Your task to perform on an android device: turn off improve location accuracy Image 0: 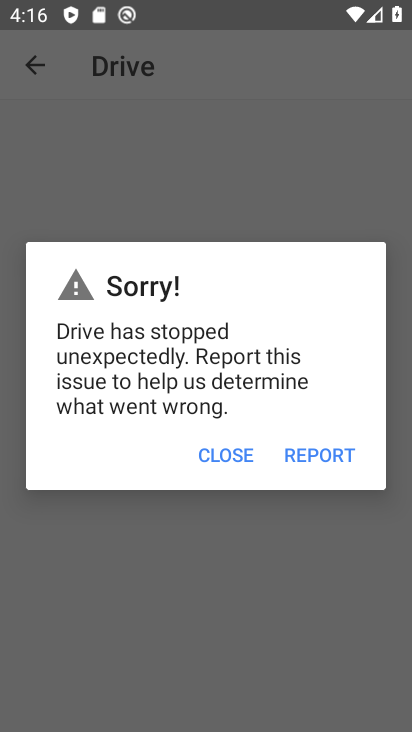
Step 0: press home button
Your task to perform on an android device: turn off improve location accuracy Image 1: 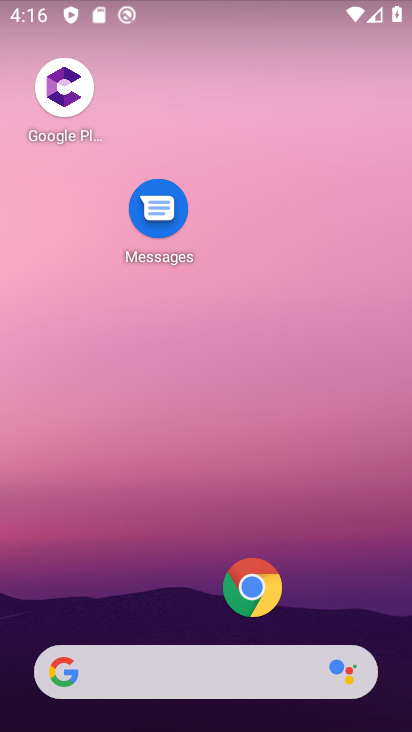
Step 1: click (260, 157)
Your task to perform on an android device: turn off improve location accuracy Image 2: 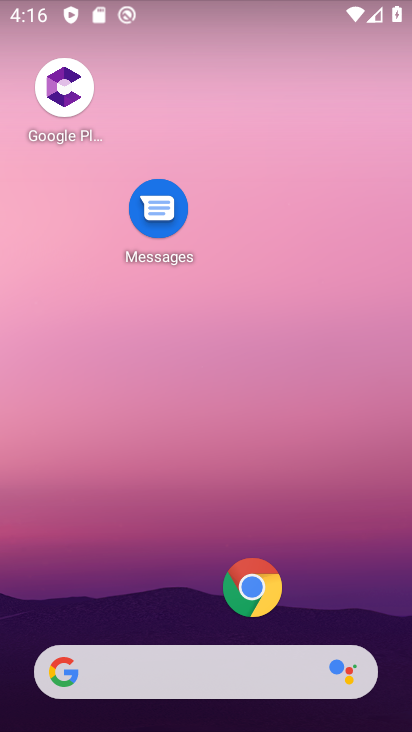
Step 2: click (236, 216)
Your task to perform on an android device: turn off improve location accuracy Image 3: 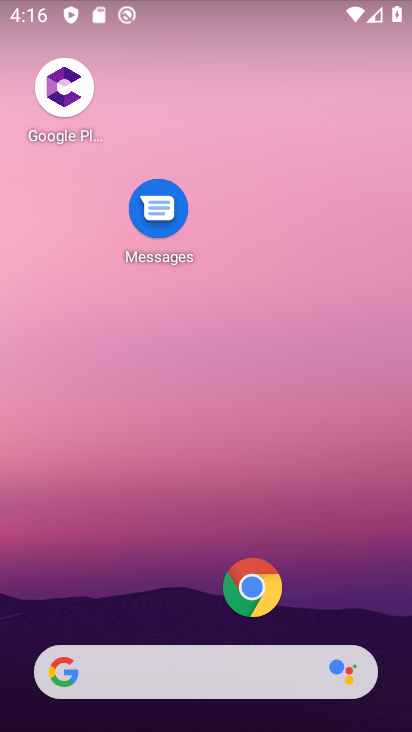
Step 3: drag from (187, 611) to (223, 215)
Your task to perform on an android device: turn off improve location accuracy Image 4: 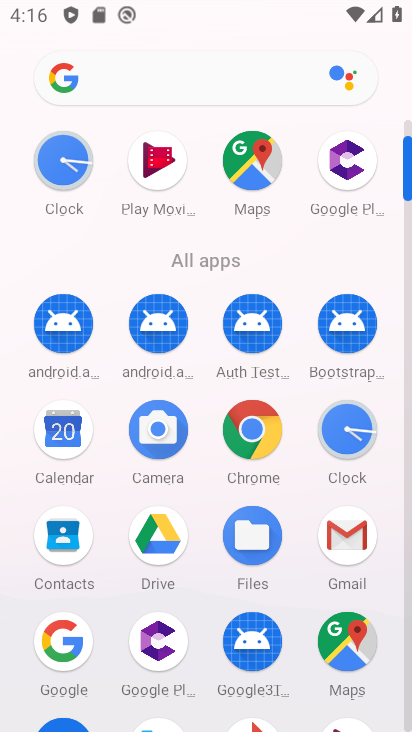
Step 4: drag from (212, 654) to (230, 310)
Your task to perform on an android device: turn off improve location accuracy Image 5: 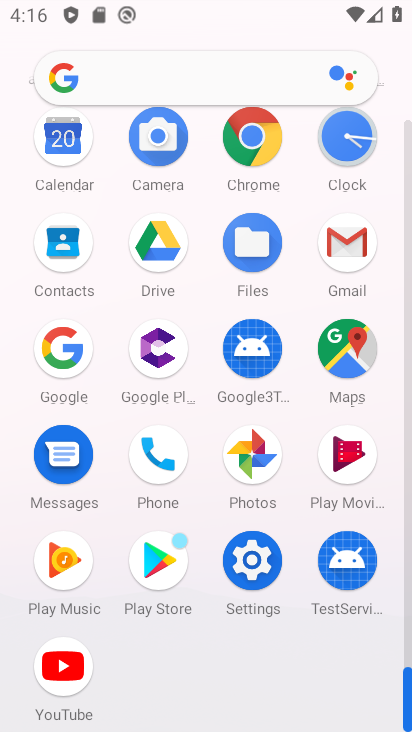
Step 5: click (244, 544)
Your task to perform on an android device: turn off improve location accuracy Image 6: 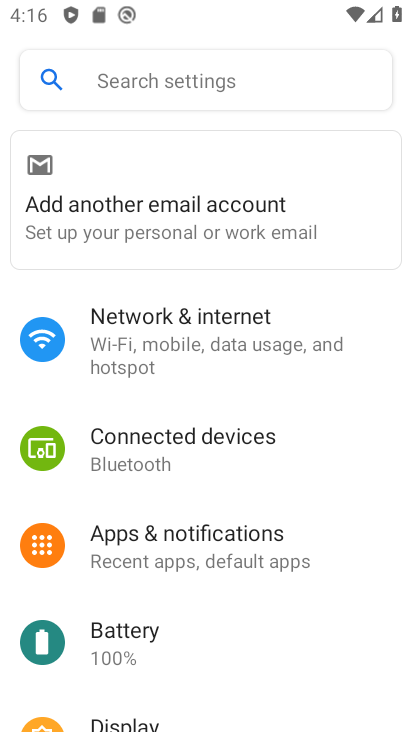
Step 6: drag from (146, 628) to (209, 294)
Your task to perform on an android device: turn off improve location accuracy Image 7: 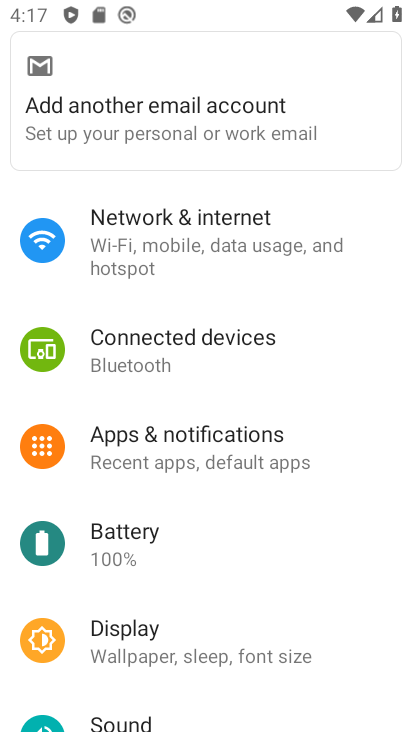
Step 7: drag from (98, 606) to (129, 378)
Your task to perform on an android device: turn off improve location accuracy Image 8: 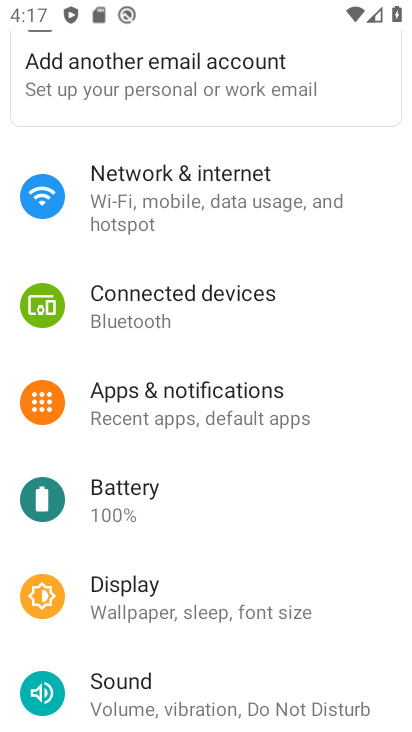
Step 8: drag from (87, 636) to (188, 224)
Your task to perform on an android device: turn off improve location accuracy Image 9: 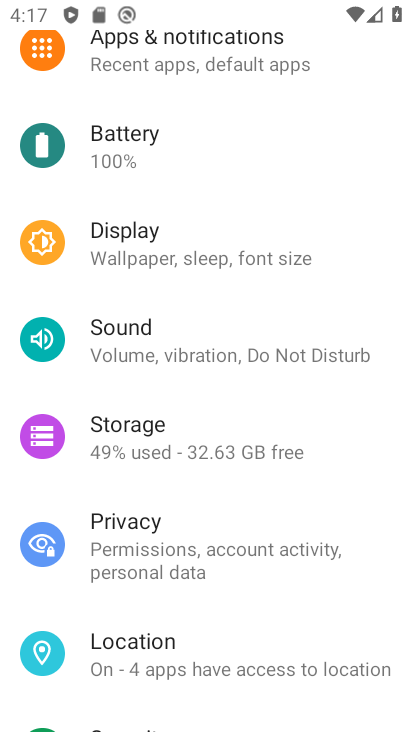
Step 9: click (136, 677)
Your task to perform on an android device: turn off improve location accuracy Image 10: 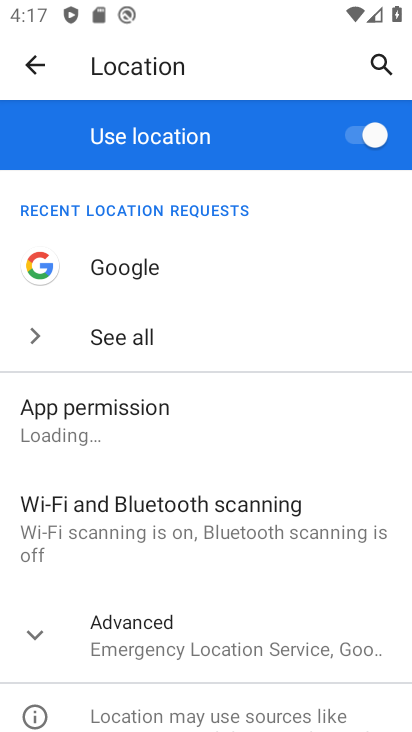
Step 10: drag from (136, 677) to (234, 263)
Your task to perform on an android device: turn off improve location accuracy Image 11: 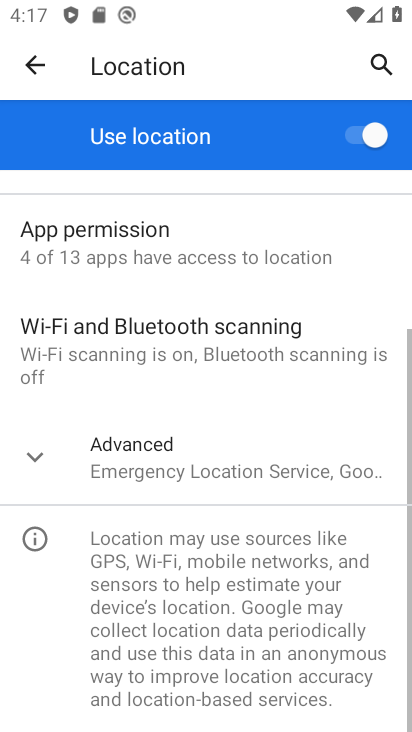
Step 11: click (192, 479)
Your task to perform on an android device: turn off improve location accuracy Image 12: 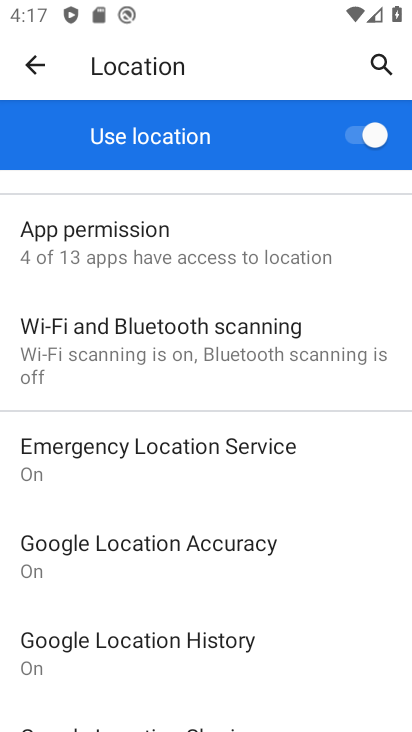
Step 12: click (140, 548)
Your task to perform on an android device: turn off improve location accuracy Image 13: 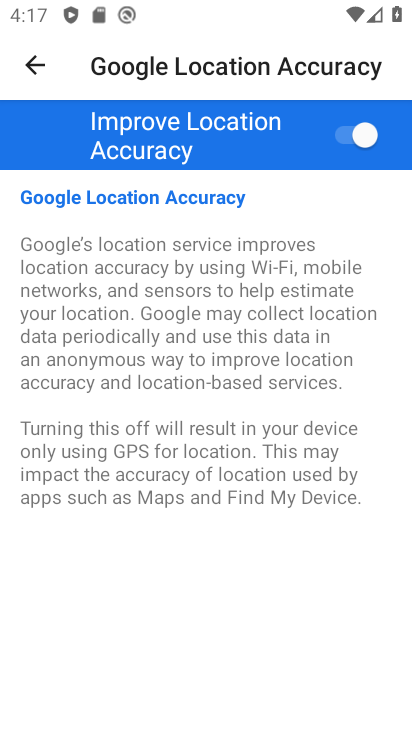
Step 13: click (364, 135)
Your task to perform on an android device: turn off improve location accuracy Image 14: 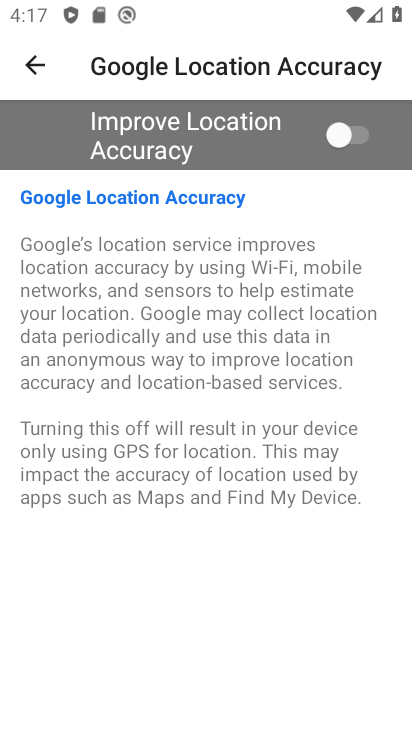
Step 14: task complete